Your task to perform on an android device: Find coffee shops on Maps Image 0: 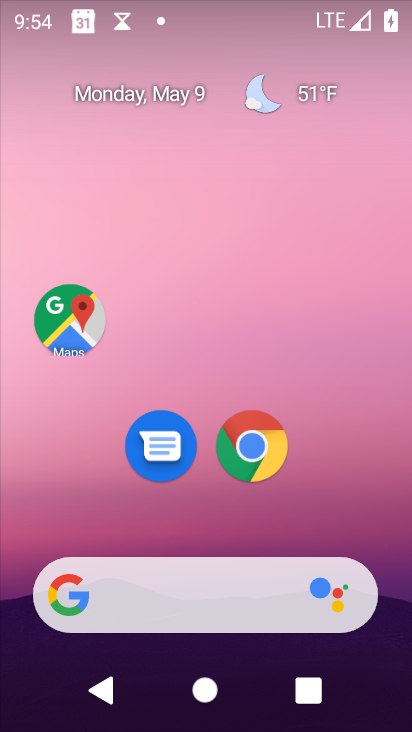
Step 0: click (73, 323)
Your task to perform on an android device: Find coffee shops on Maps Image 1: 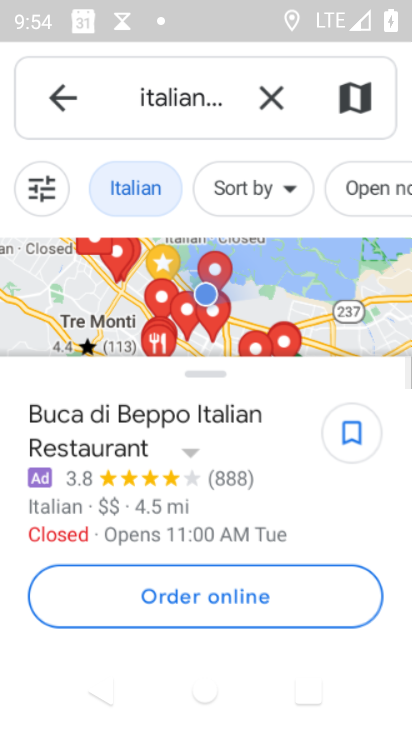
Step 1: click (263, 96)
Your task to perform on an android device: Find coffee shops on Maps Image 2: 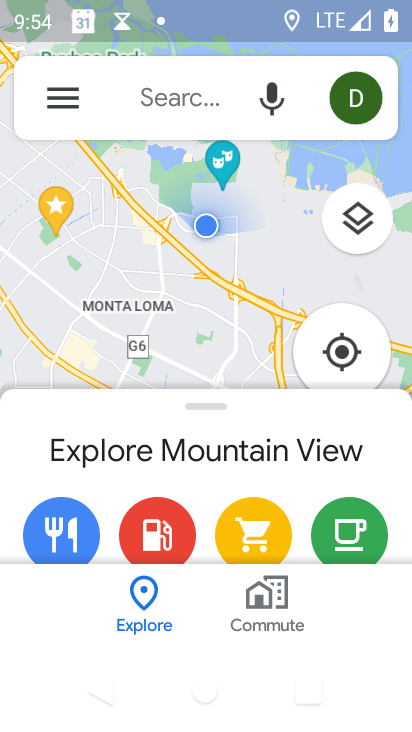
Step 2: click (197, 113)
Your task to perform on an android device: Find coffee shops on Maps Image 3: 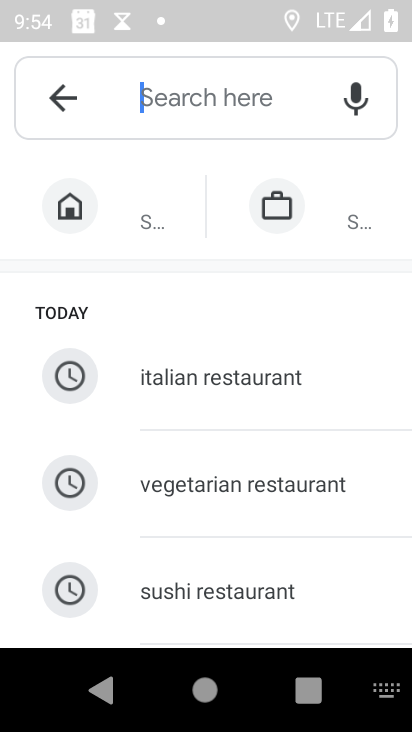
Step 3: type "coffee shops"
Your task to perform on an android device: Find coffee shops on Maps Image 4: 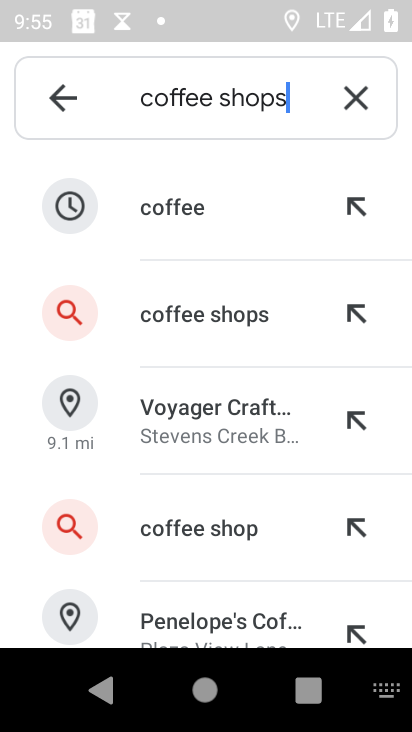
Step 4: click (216, 323)
Your task to perform on an android device: Find coffee shops on Maps Image 5: 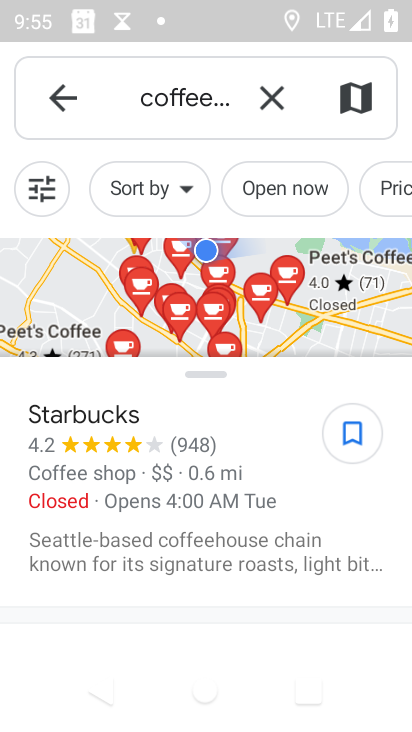
Step 5: task complete